Your task to perform on an android device: change alarm snooze length Image 0: 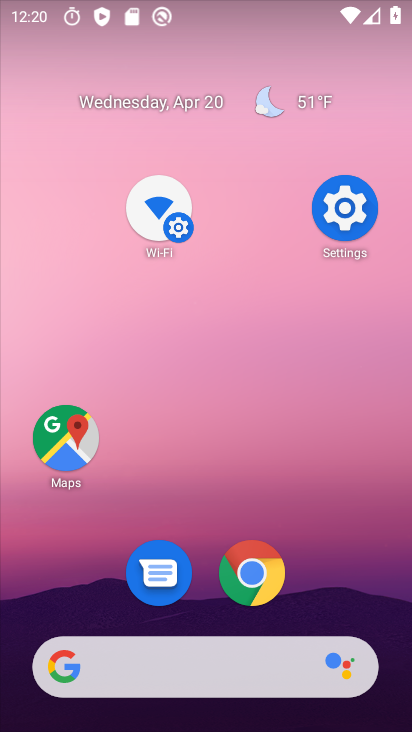
Step 0: drag from (323, 605) to (346, 175)
Your task to perform on an android device: change alarm snooze length Image 1: 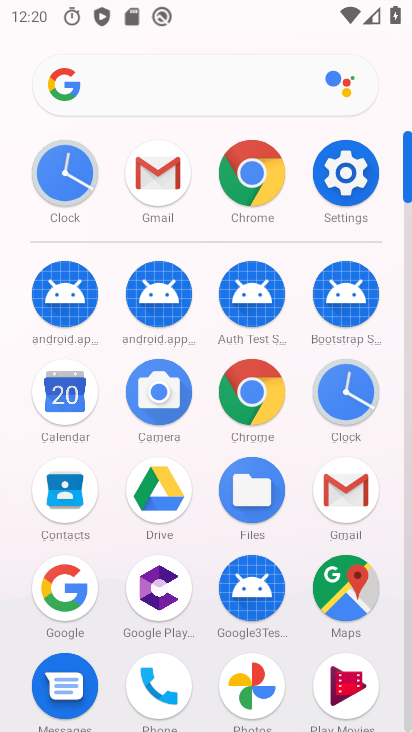
Step 1: click (360, 413)
Your task to perform on an android device: change alarm snooze length Image 2: 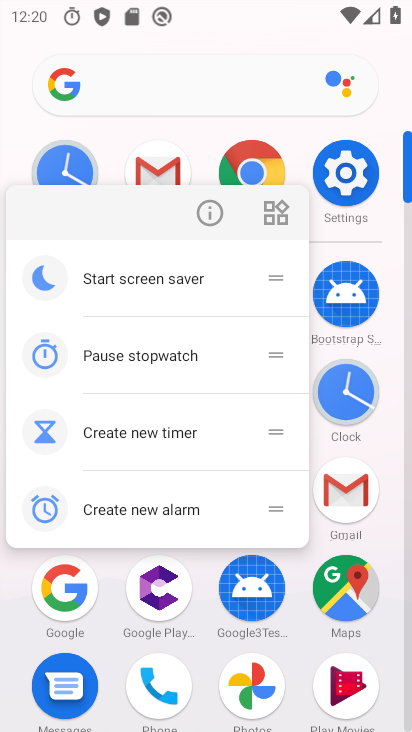
Step 2: click (354, 403)
Your task to perform on an android device: change alarm snooze length Image 3: 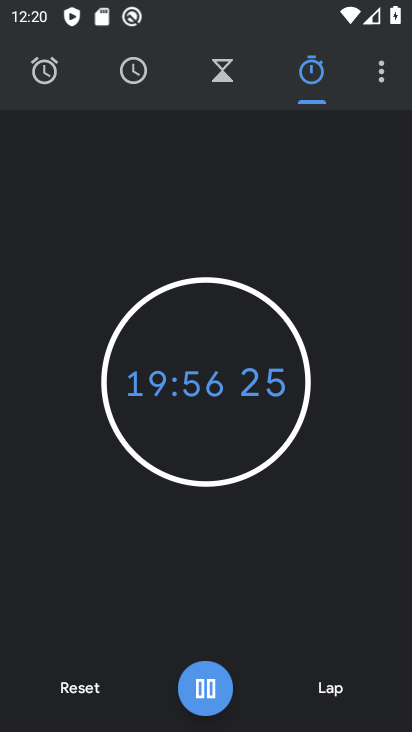
Step 3: drag from (381, 77) to (365, 114)
Your task to perform on an android device: change alarm snooze length Image 4: 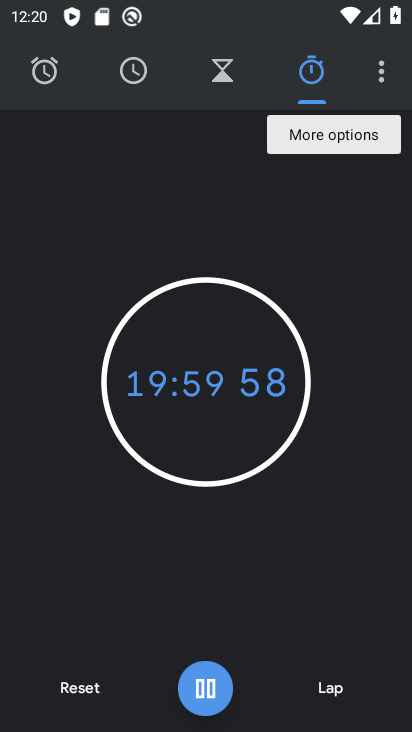
Step 4: click (380, 84)
Your task to perform on an android device: change alarm snooze length Image 5: 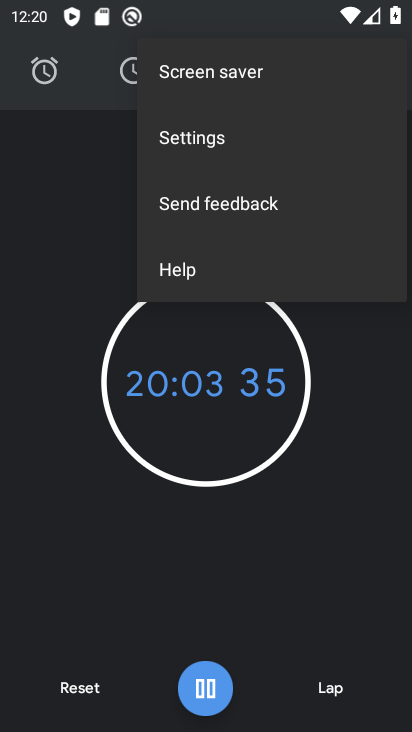
Step 5: click (180, 146)
Your task to perform on an android device: change alarm snooze length Image 6: 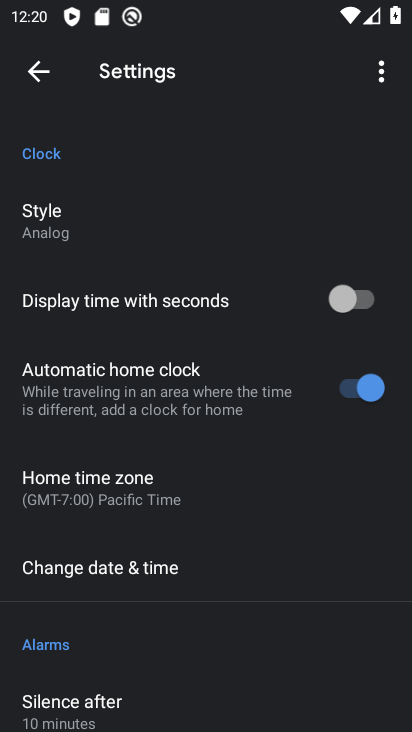
Step 6: drag from (178, 632) to (178, 371)
Your task to perform on an android device: change alarm snooze length Image 7: 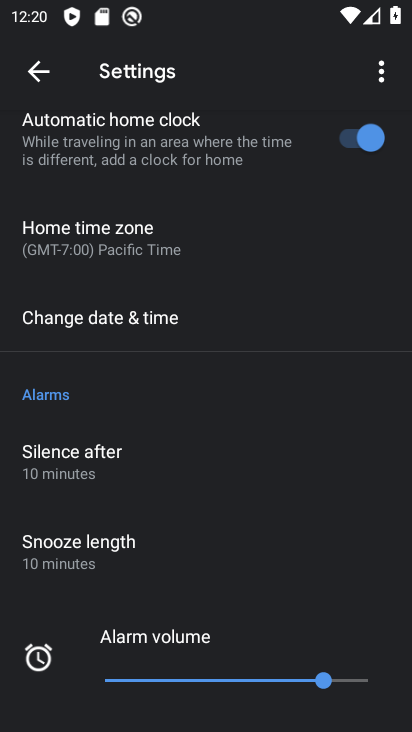
Step 7: click (118, 550)
Your task to perform on an android device: change alarm snooze length Image 8: 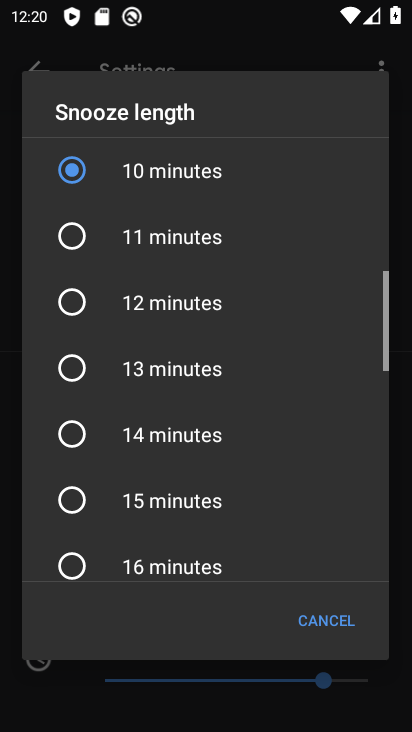
Step 8: click (125, 232)
Your task to perform on an android device: change alarm snooze length Image 9: 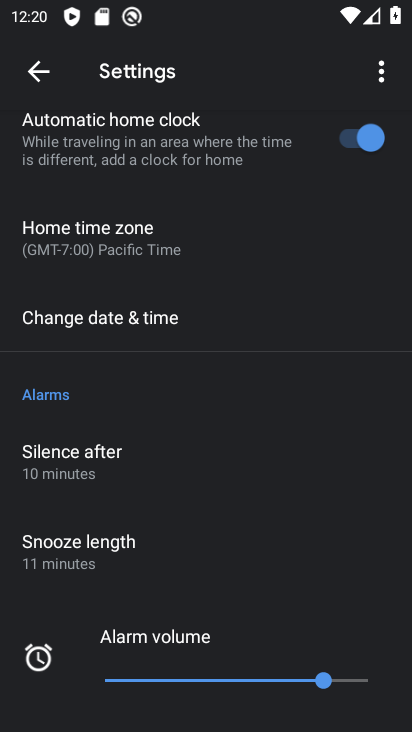
Step 9: task complete